Your task to perform on an android device: Go to Maps Image 0: 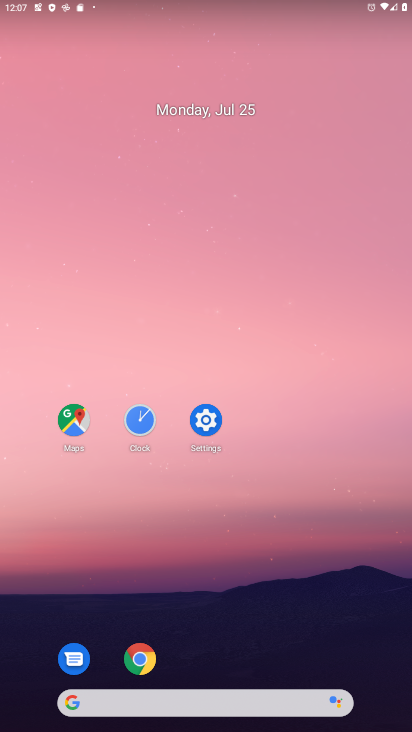
Step 0: click (64, 427)
Your task to perform on an android device: Go to Maps Image 1: 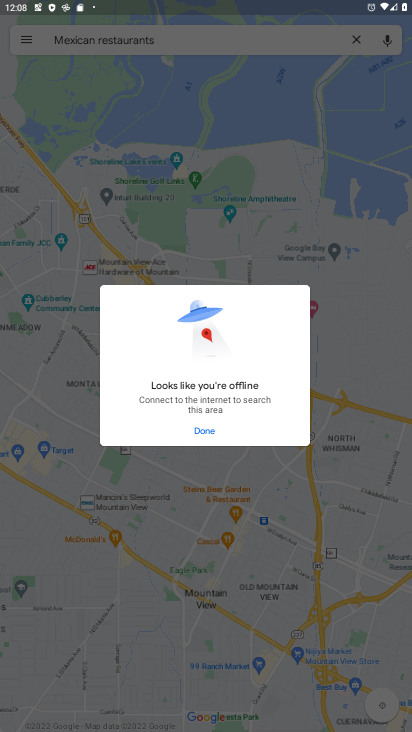
Step 1: press home button
Your task to perform on an android device: Go to Maps Image 2: 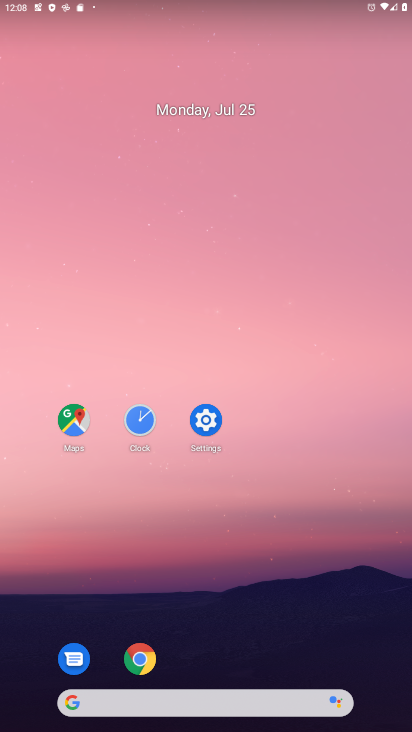
Step 2: click (82, 421)
Your task to perform on an android device: Go to Maps Image 3: 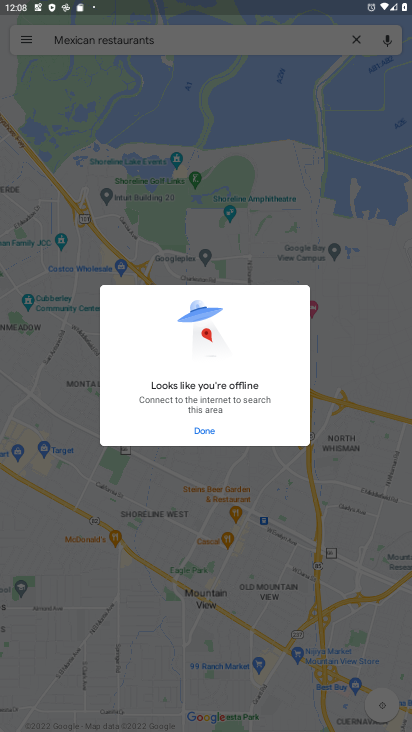
Step 3: task complete